Your task to perform on an android device: Open Reddit.com Image 0: 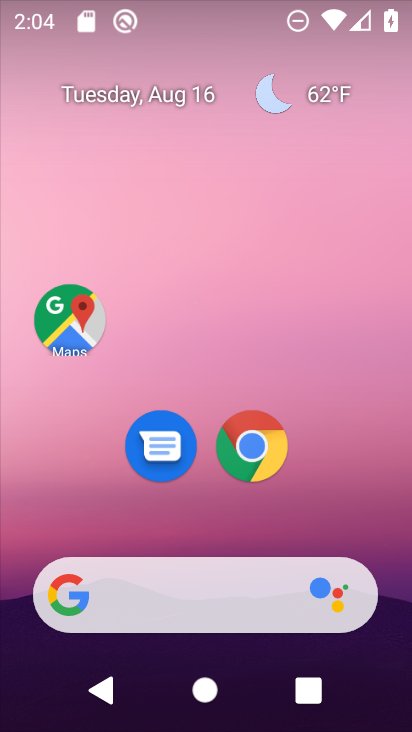
Step 0: press home button
Your task to perform on an android device: Open Reddit.com Image 1: 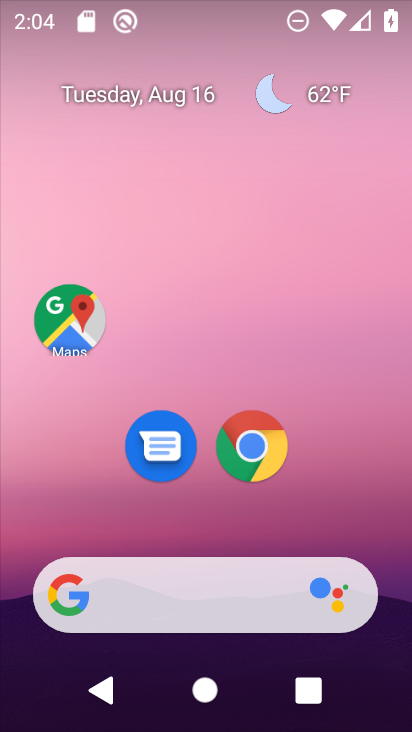
Step 1: drag from (199, 527) to (210, 101)
Your task to perform on an android device: Open Reddit.com Image 2: 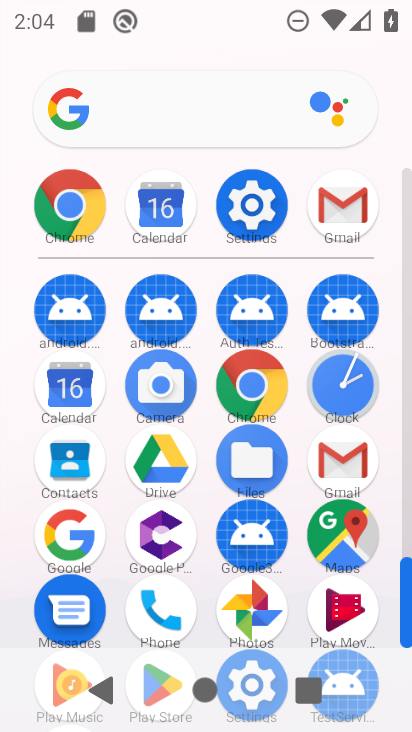
Step 2: click (249, 378)
Your task to perform on an android device: Open Reddit.com Image 3: 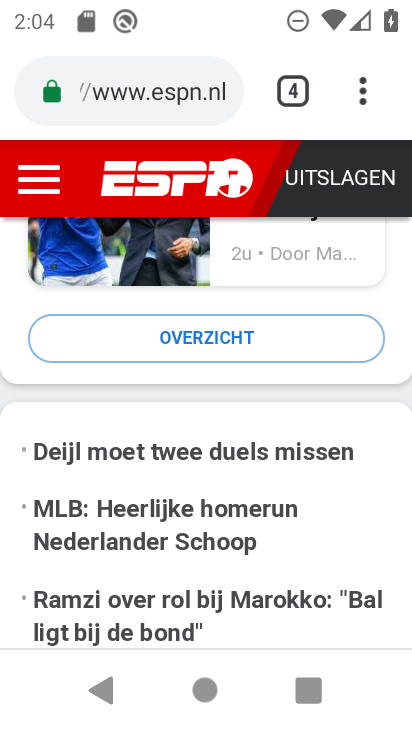
Step 3: click (297, 88)
Your task to perform on an android device: Open Reddit.com Image 4: 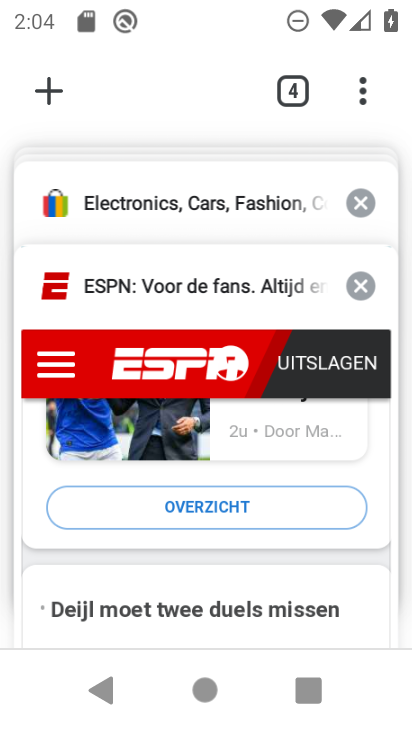
Step 4: click (66, 91)
Your task to perform on an android device: Open Reddit.com Image 5: 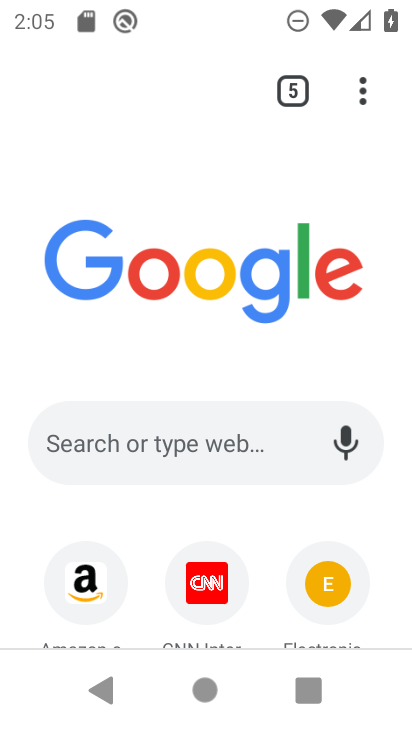
Step 5: click (157, 443)
Your task to perform on an android device: Open Reddit.com Image 6: 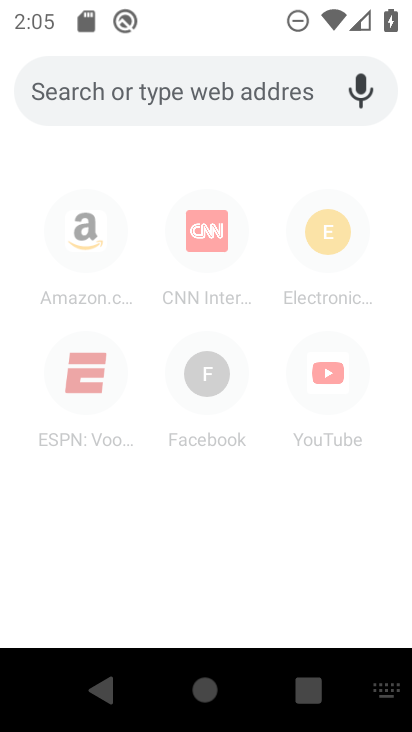
Step 6: type "reddit.com"
Your task to perform on an android device: Open Reddit.com Image 7: 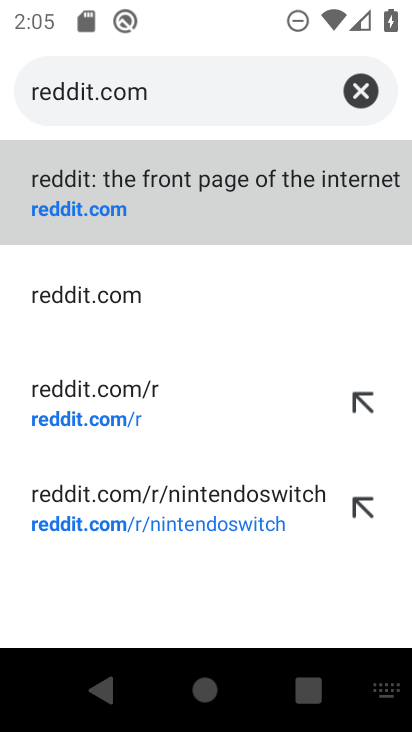
Step 7: click (142, 201)
Your task to perform on an android device: Open Reddit.com Image 8: 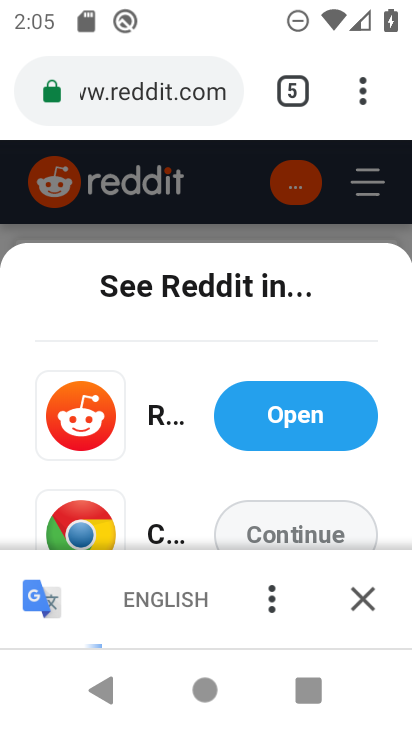
Step 8: click (358, 602)
Your task to perform on an android device: Open Reddit.com Image 9: 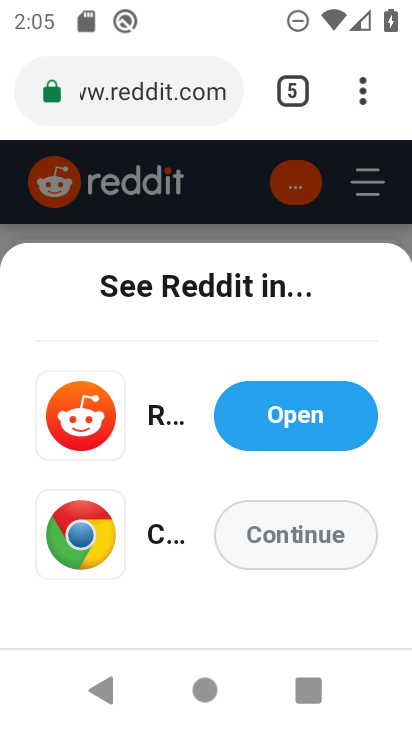
Step 9: click (291, 527)
Your task to perform on an android device: Open Reddit.com Image 10: 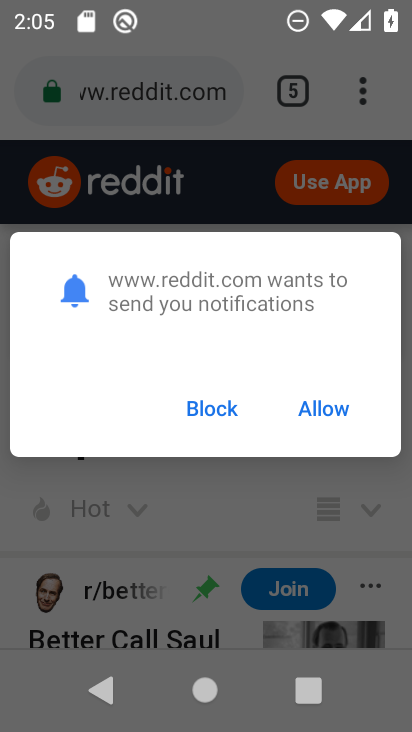
Step 10: click (320, 416)
Your task to perform on an android device: Open Reddit.com Image 11: 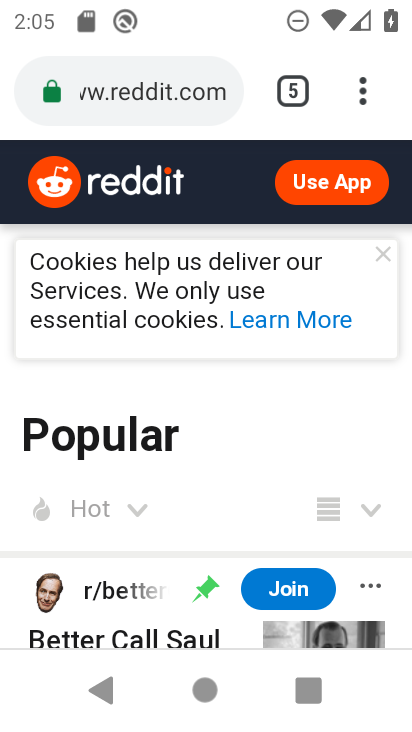
Step 11: task complete